Your task to perform on an android device: turn on location history Image 0: 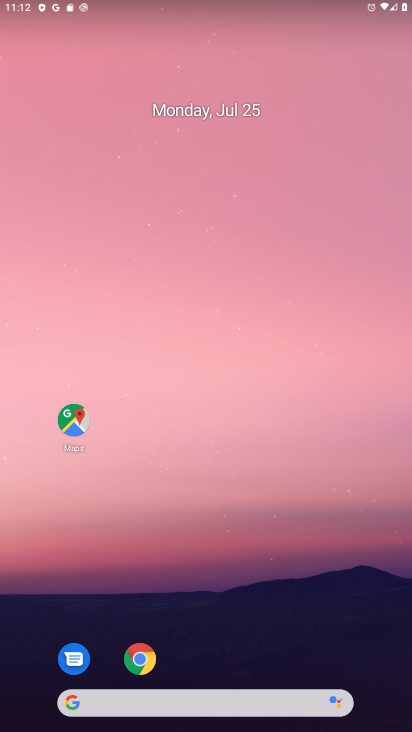
Step 0: drag from (224, 604) to (95, 8)
Your task to perform on an android device: turn on location history Image 1: 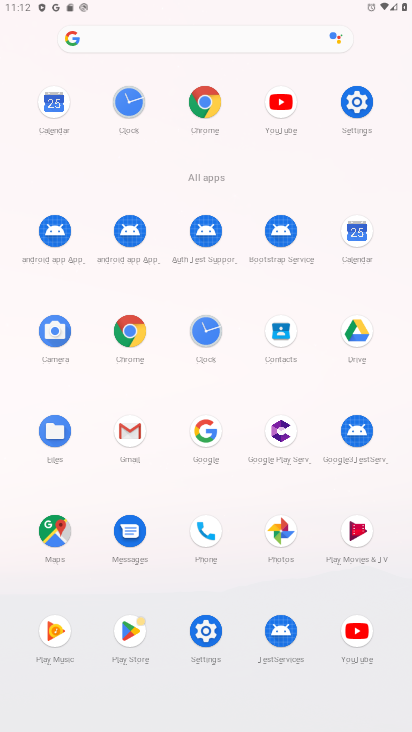
Step 1: click (357, 103)
Your task to perform on an android device: turn on location history Image 2: 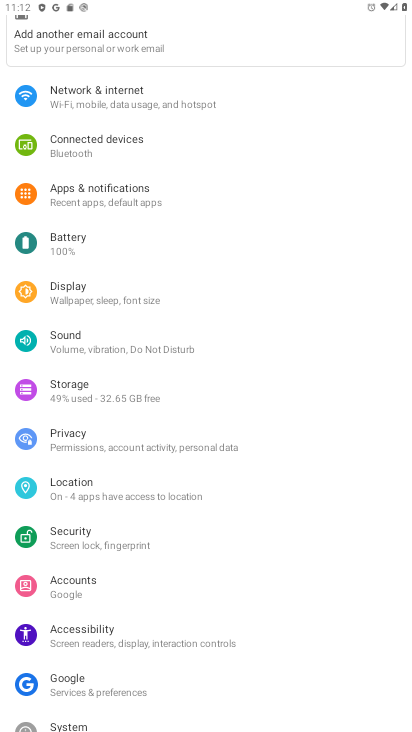
Step 2: click (77, 484)
Your task to perform on an android device: turn on location history Image 3: 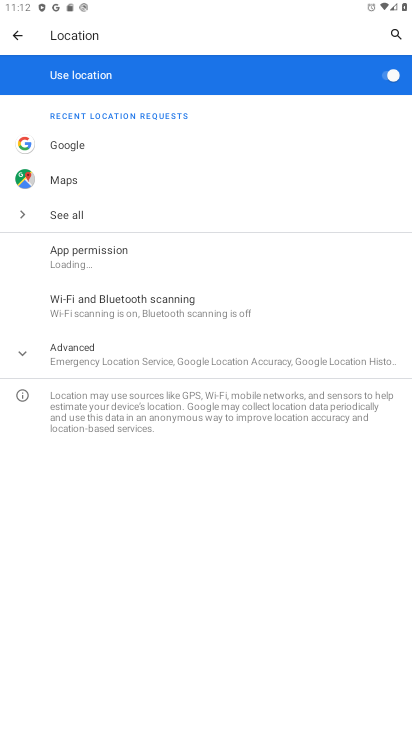
Step 3: click (22, 350)
Your task to perform on an android device: turn on location history Image 4: 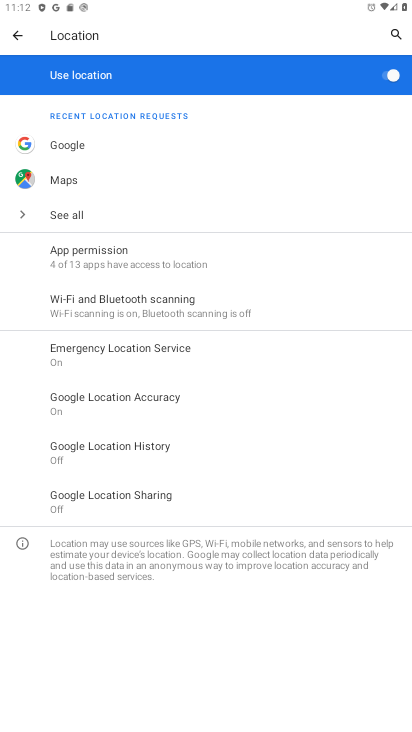
Step 4: click (115, 445)
Your task to perform on an android device: turn on location history Image 5: 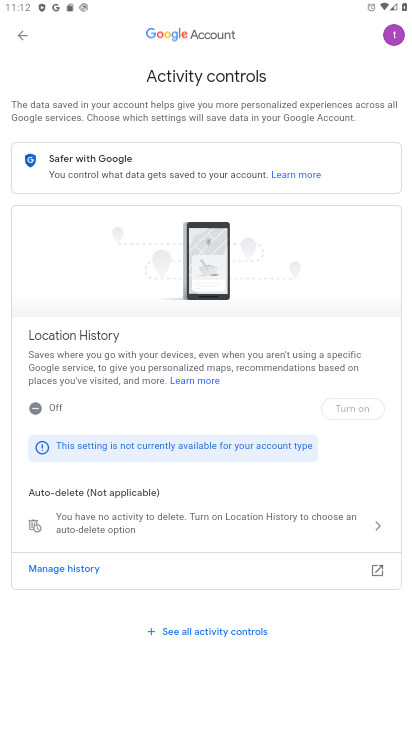
Step 5: click (345, 410)
Your task to perform on an android device: turn on location history Image 6: 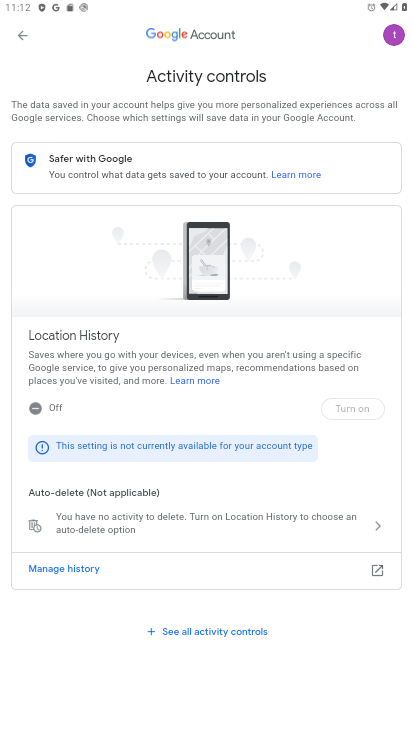
Step 6: click (349, 410)
Your task to perform on an android device: turn on location history Image 7: 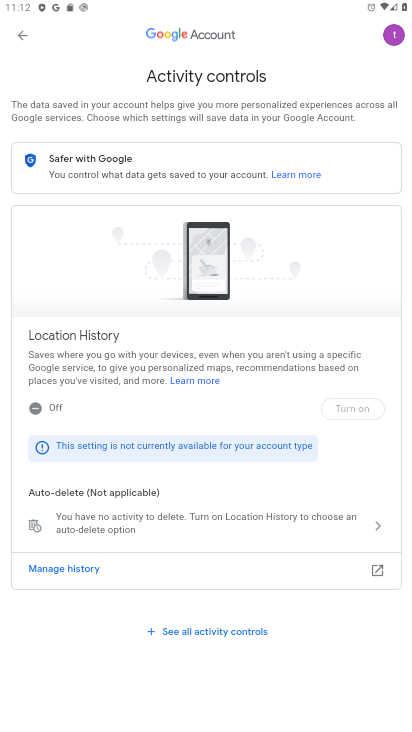
Step 7: task complete